Your task to perform on an android device: Show me recent news Image 0: 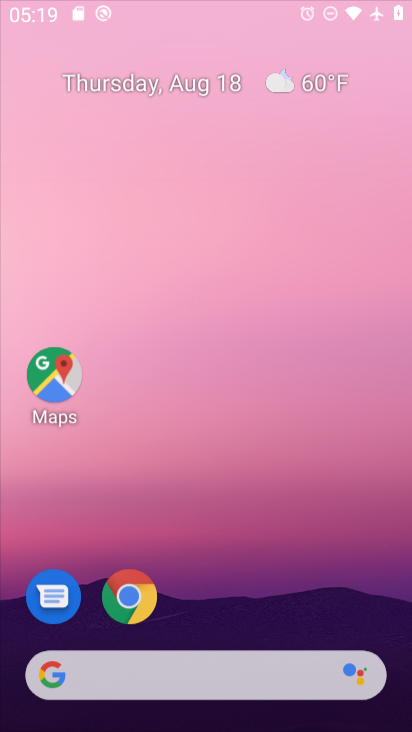
Step 0: press home button
Your task to perform on an android device: Show me recent news Image 1: 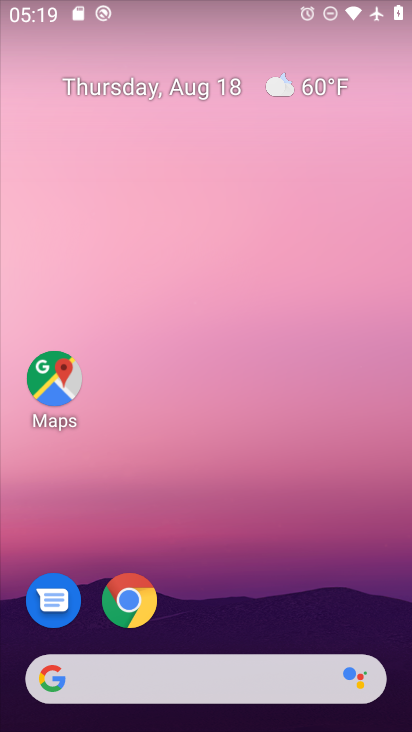
Step 1: click (49, 695)
Your task to perform on an android device: Show me recent news Image 2: 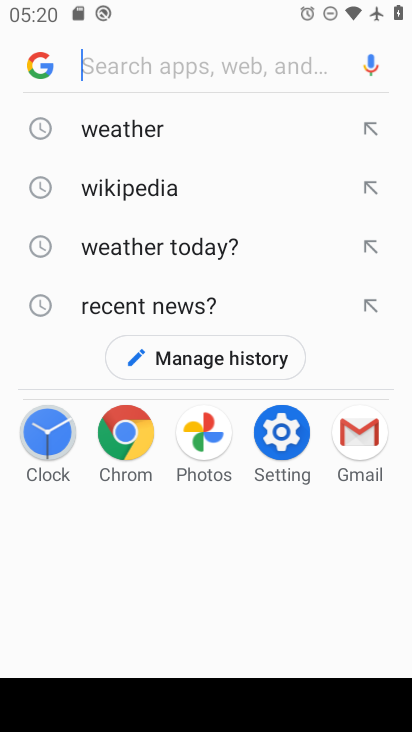
Step 2: type " recent news"
Your task to perform on an android device: Show me recent news Image 3: 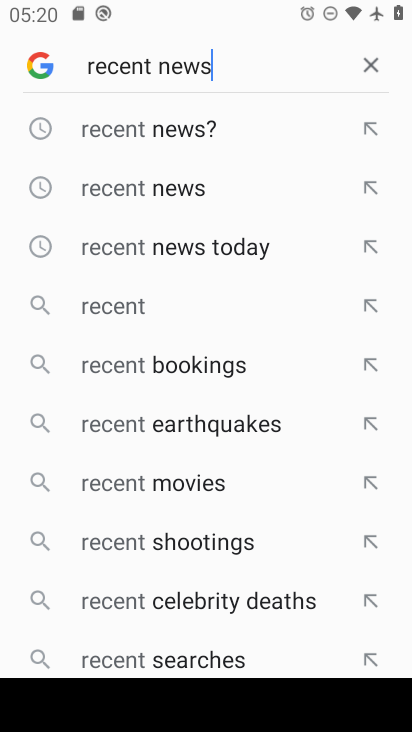
Step 3: press enter
Your task to perform on an android device: Show me recent news Image 4: 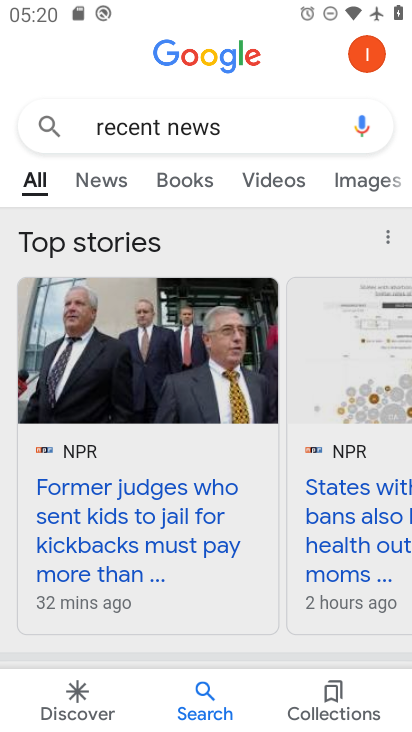
Step 4: task complete